Your task to perform on an android device: turn on sleep mode Image 0: 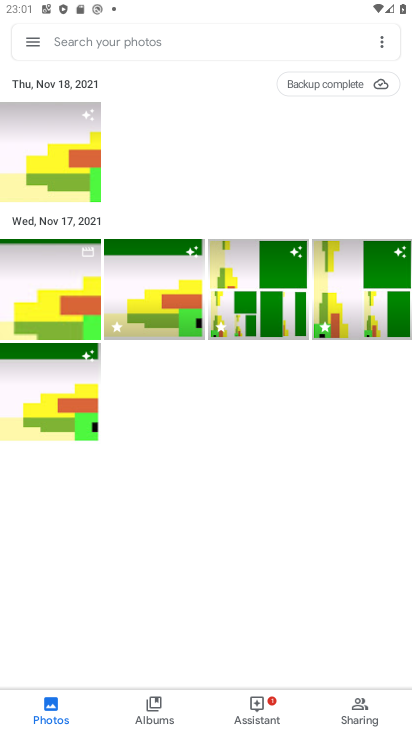
Step 0: press home button
Your task to perform on an android device: turn on sleep mode Image 1: 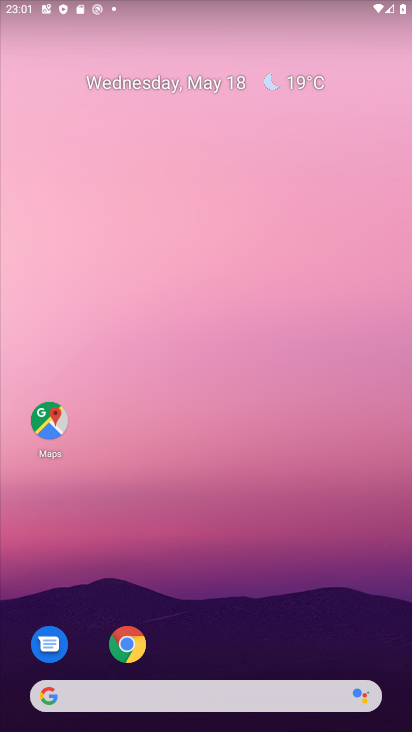
Step 1: drag from (307, 585) to (371, 135)
Your task to perform on an android device: turn on sleep mode Image 2: 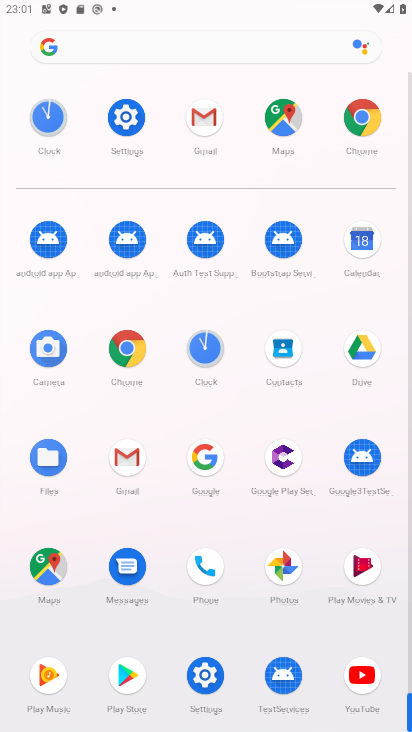
Step 2: click (130, 128)
Your task to perform on an android device: turn on sleep mode Image 3: 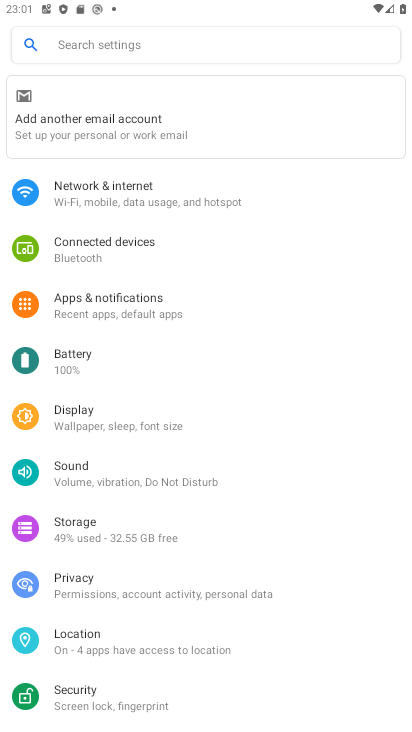
Step 3: click (123, 530)
Your task to perform on an android device: turn on sleep mode Image 4: 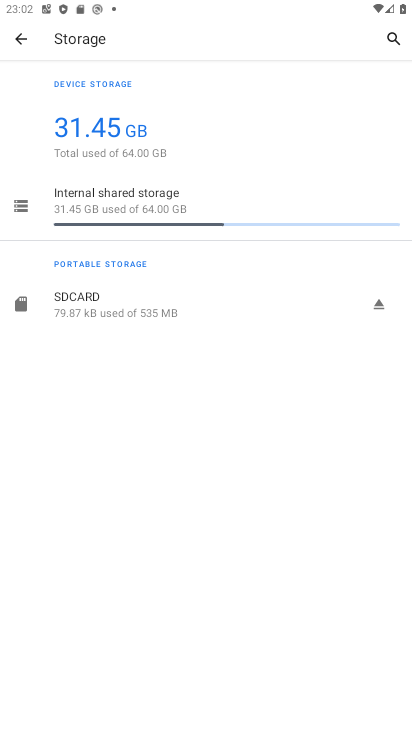
Step 4: click (25, 44)
Your task to perform on an android device: turn on sleep mode Image 5: 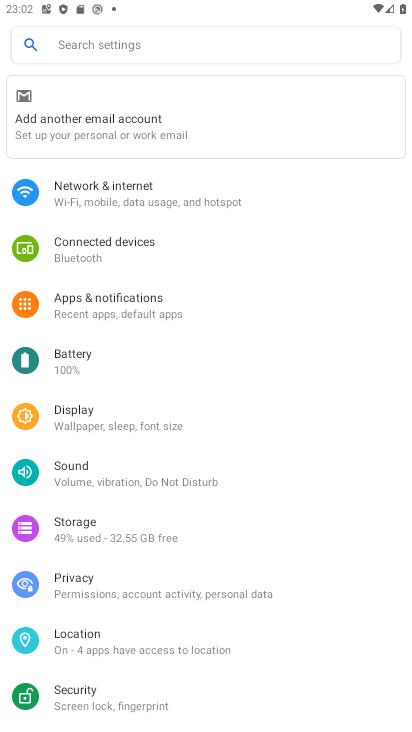
Step 5: click (106, 420)
Your task to perform on an android device: turn on sleep mode Image 6: 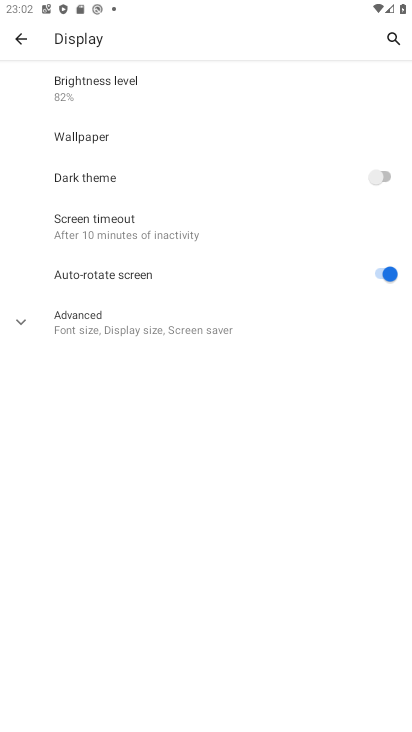
Step 6: click (129, 233)
Your task to perform on an android device: turn on sleep mode Image 7: 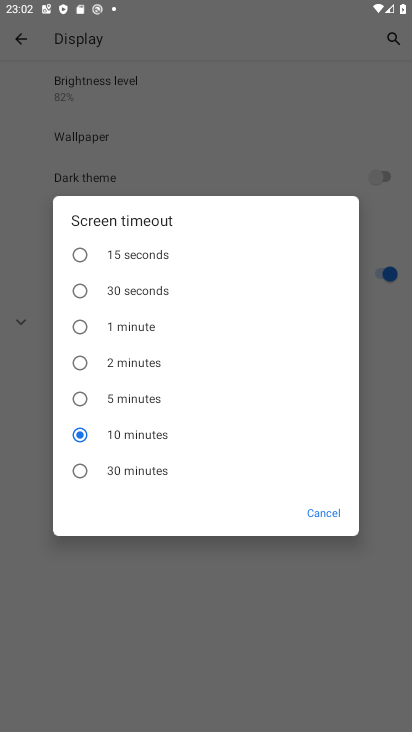
Step 7: task complete